Your task to perform on an android device: See recent photos Image 0: 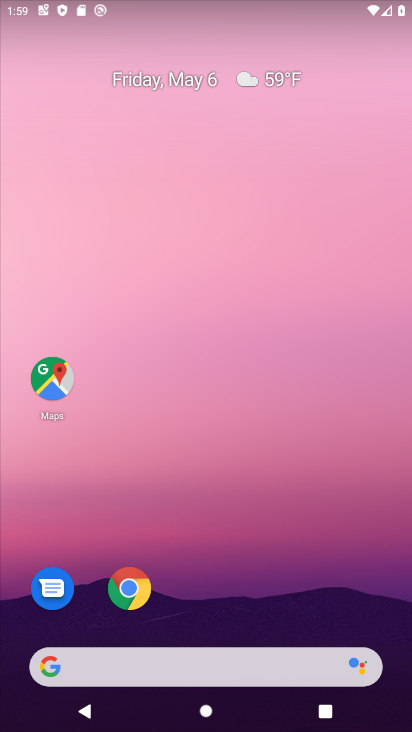
Step 0: drag from (220, 591) to (253, 332)
Your task to perform on an android device: See recent photos Image 1: 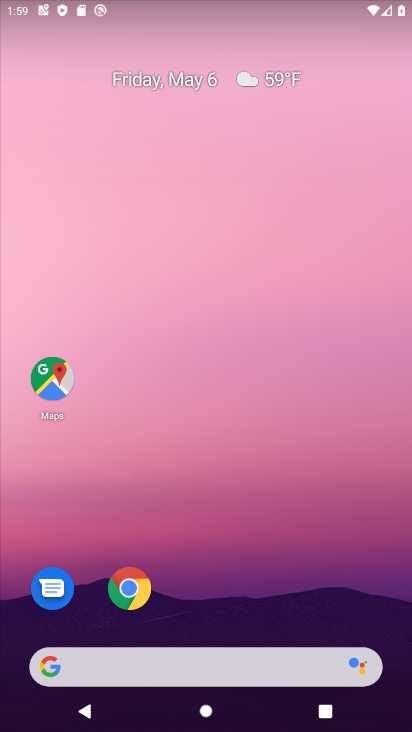
Step 1: drag from (167, 620) to (236, 11)
Your task to perform on an android device: See recent photos Image 2: 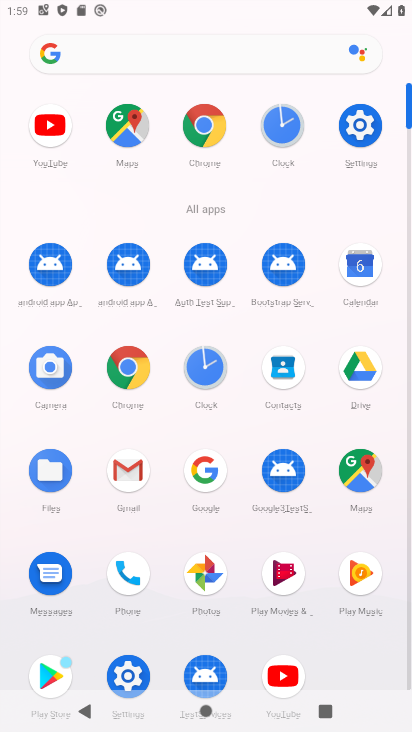
Step 2: click (181, 564)
Your task to perform on an android device: See recent photos Image 3: 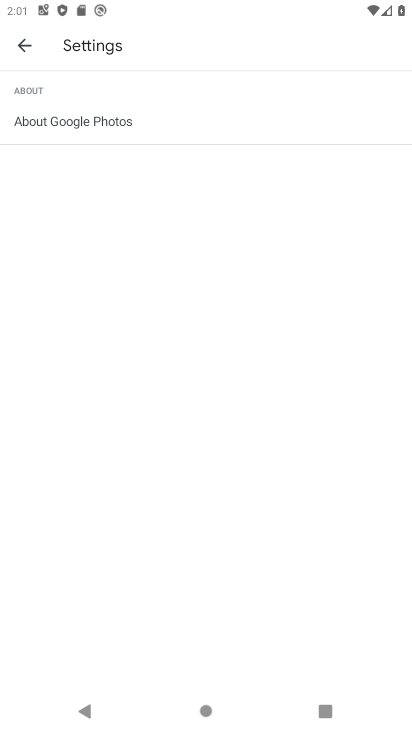
Step 3: click (22, 56)
Your task to perform on an android device: See recent photos Image 4: 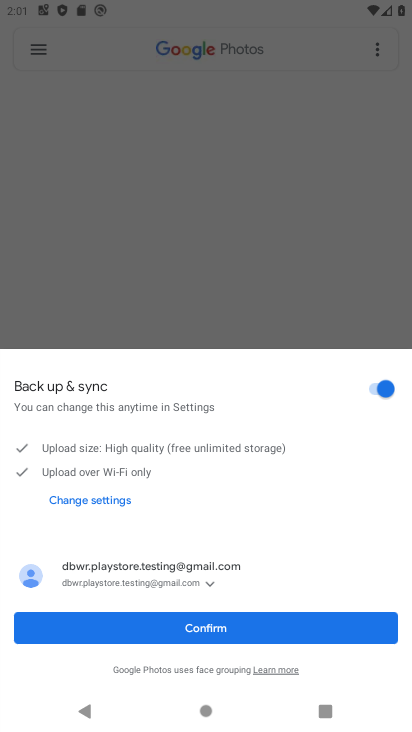
Step 4: click (118, 216)
Your task to perform on an android device: See recent photos Image 5: 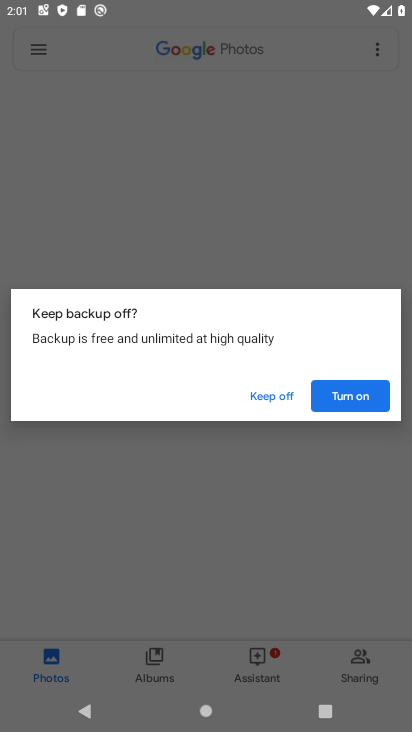
Step 5: click (118, 216)
Your task to perform on an android device: See recent photos Image 6: 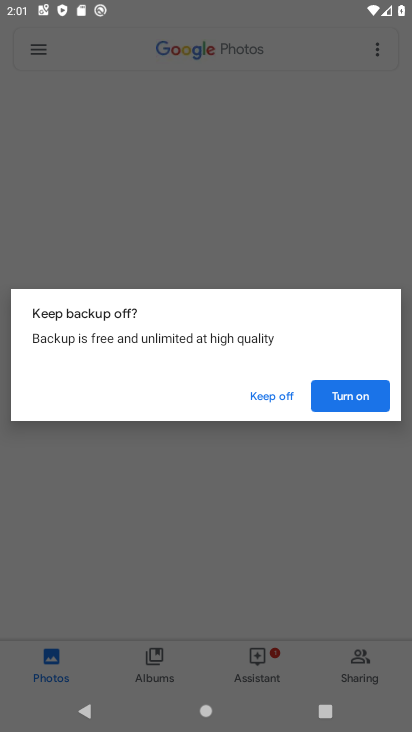
Step 6: click (254, 404)
Your task to perform on an android device: See recent photos Image 7: 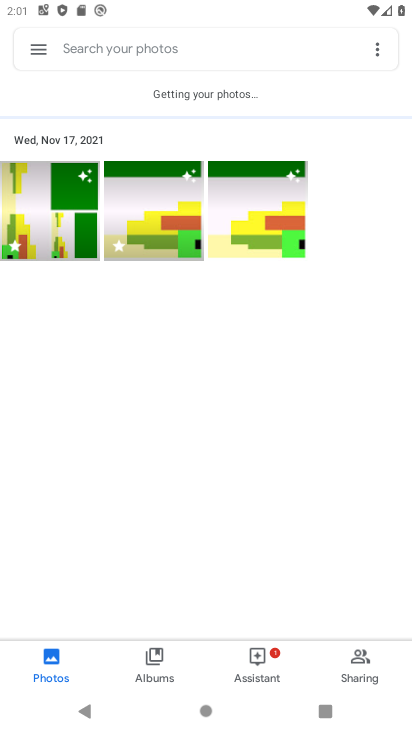
Step 7: task complete